Your task to perform on an android device: turn on notifications settings in the gmail app Image 0: 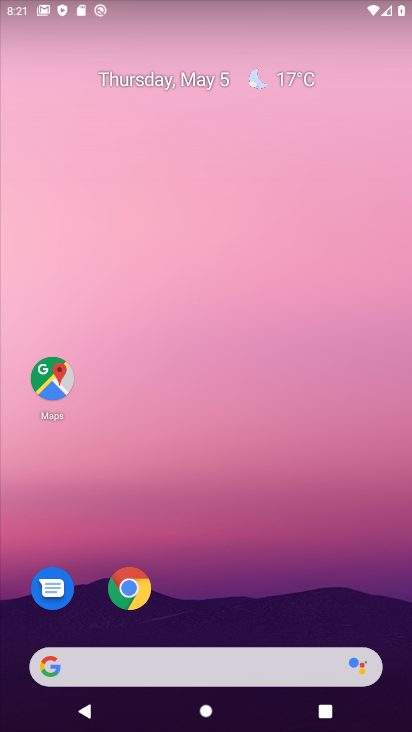
Step 0: drag from (244, 591) to (280, 225)
Your task to perform on an android device: turn on notifications settings in the gmail app Image 1: 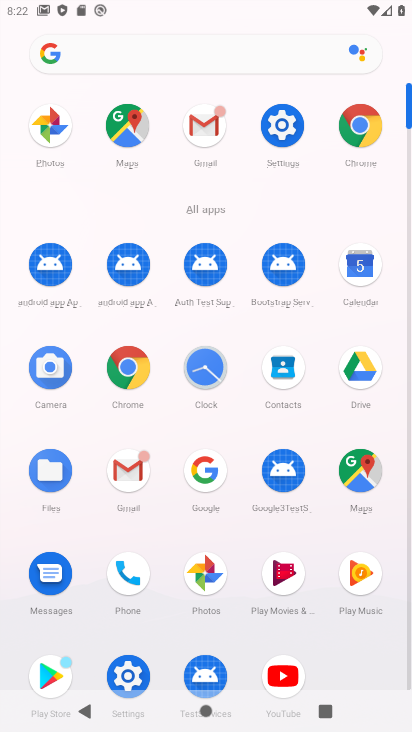
Step 1: click (204, 131)
Your task to perform on an android device: turn on notifications settings in the gmail app Image 2: 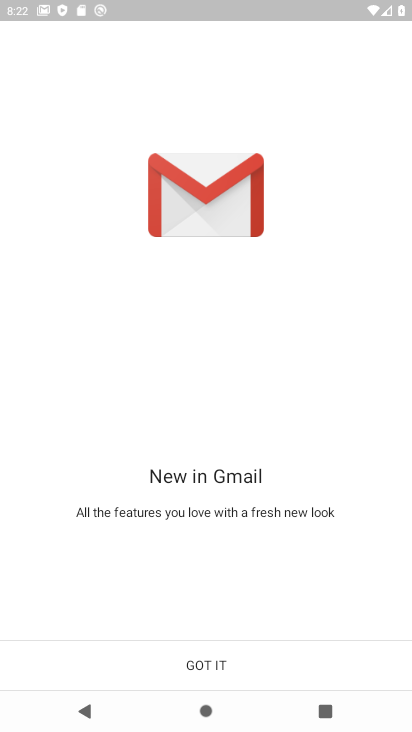
Step 2: click (193, 667)
Your task to perform on an android device: turn on notifications settings in the gmail app Image 3: 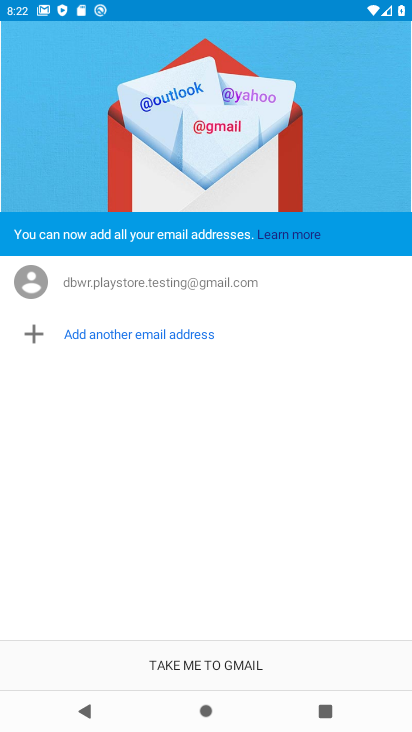
Step 3: click (194, 666)
Your task to perform on an android device: turn on notifications settings in the gmail app Image 4: 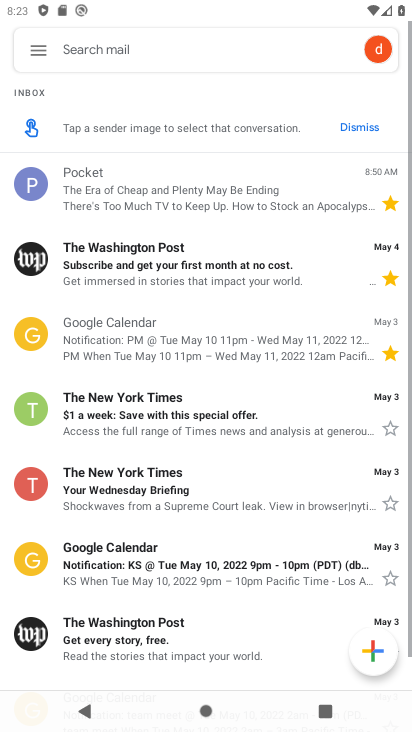
Step 4: click (43, 47)
Your task to perform on an android device: turn on notifications settings in the gmail app Image 5: 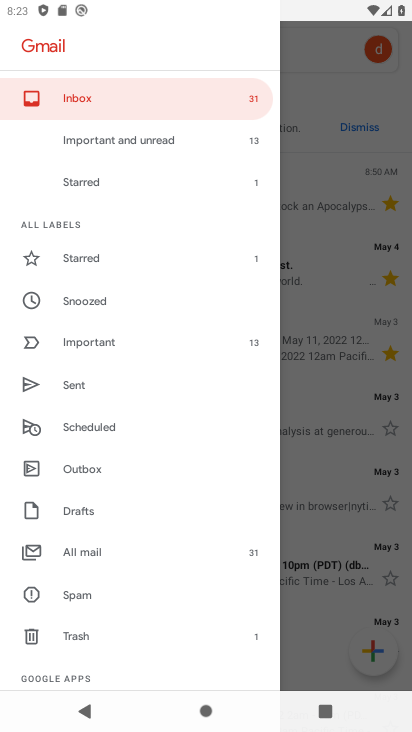
Step 5: drag from (103, 622) to (164, 343)
Your task to perform on an android device: turn on notifications settings in the gmail app Image 6: 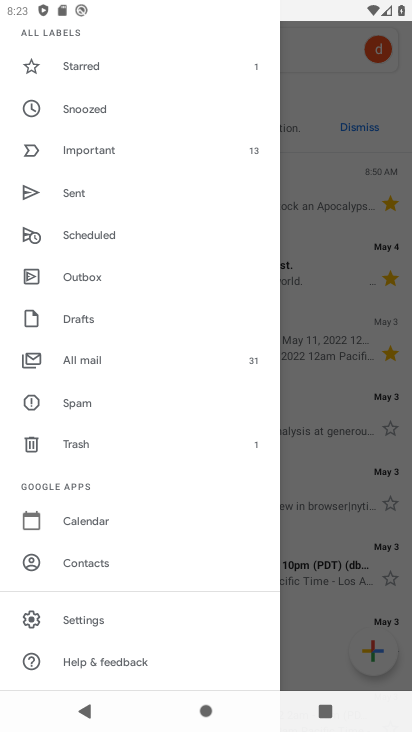
Step 6: click (93, 619)
Your task to perform on an android device: turn on notifications settings in the gmail app Image 7: 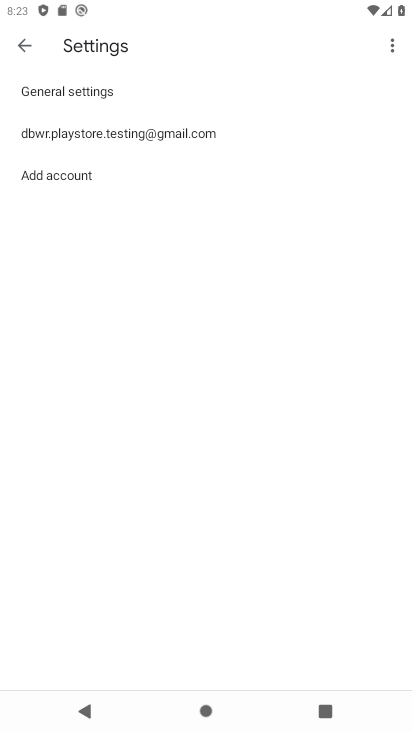
Step 7: click (75, 141)
Your task to perform on an android device: turn on notifications settings in the gmail app Image 8: 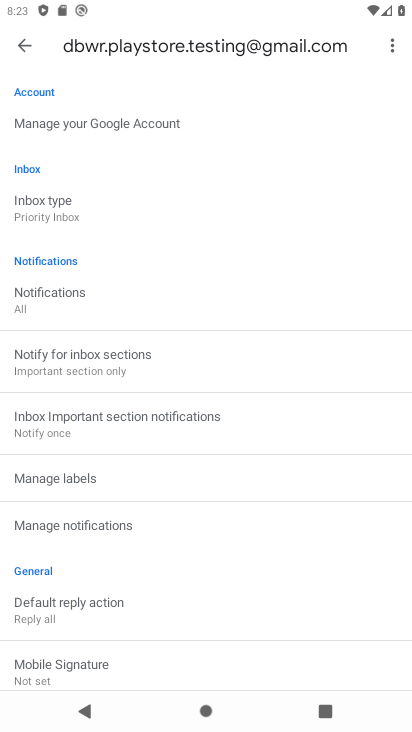
Step 8: click (65, 295)
Your task to perform on an android device: turn on notifications settings in the gmail app Image 9: 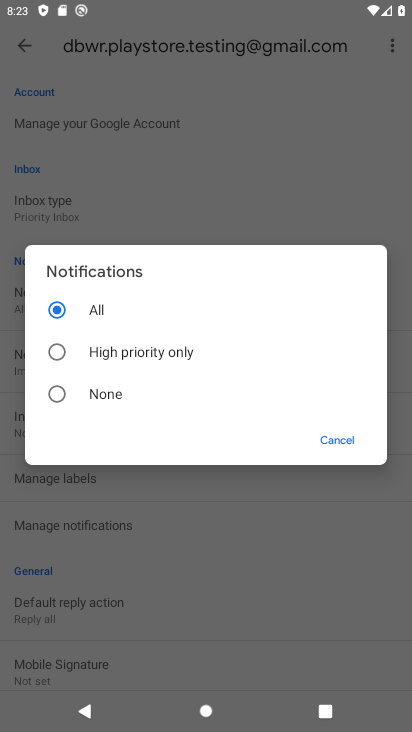
Step 9: click (246, 198)
Your task to perform on an android device: turn on notifications settings in the gmail app Image 10: 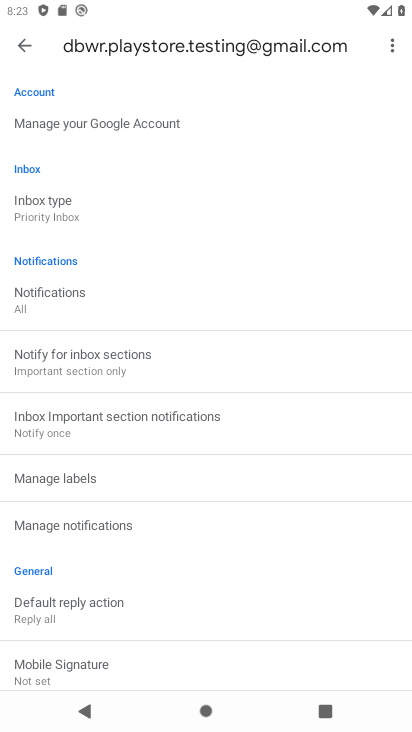
Step 10: click (345, 443)
Your task to perform on an android device: turn on notifications settings in the gmail app Image 11: 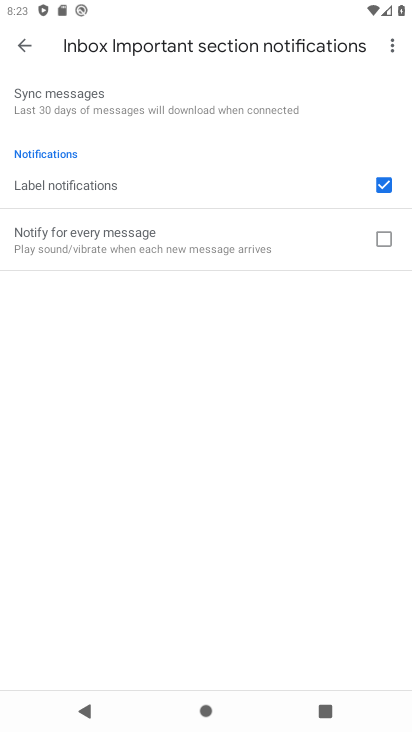
Step 11: click (26, 41)
Your task to perform on an android device: turn on notifications settings in the gmail app Image 12: 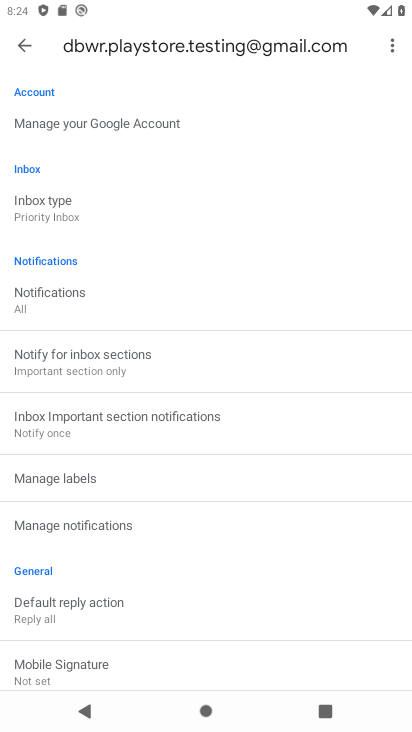
Step 12: click (65, 293)
Your task to perform on an android device: turn on notifications settings in the gmail app Image 13: 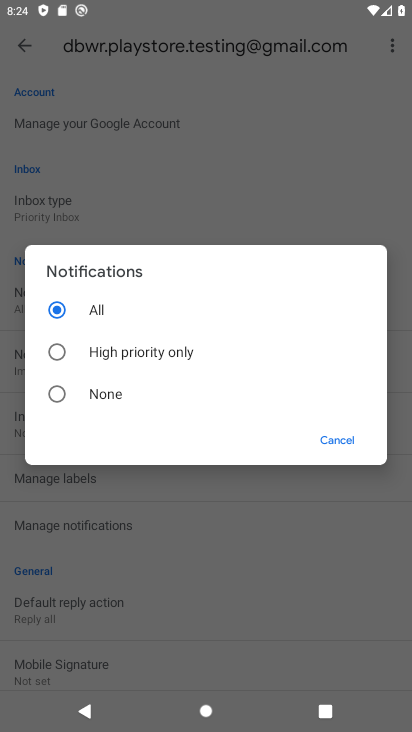
Step 13: task complete